Your task to perform on an android device: Open Youtube and go to "Your channel" Image 0: 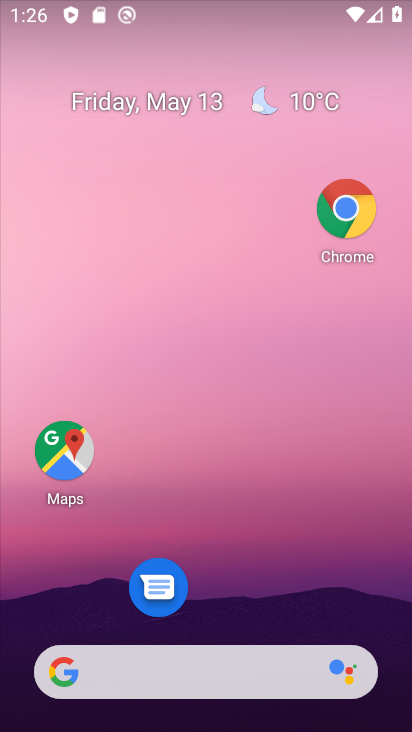
Step 0: drag from (302, 543) to (301, 22)
Your task to perform on an android device: Open Youtube and go to "Your channel" Image 1: 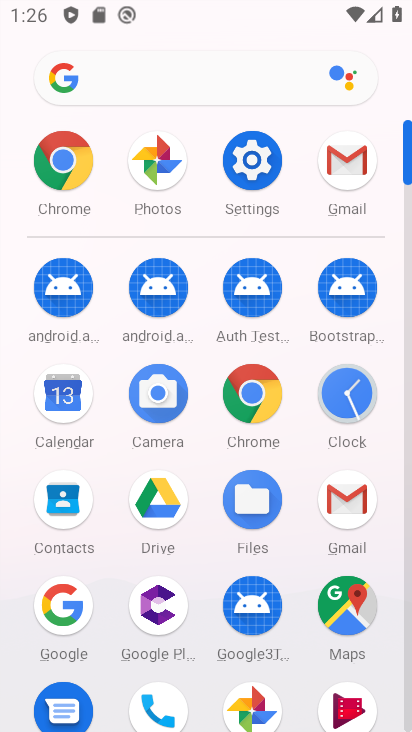
Step 1: drag from (187, 649) to (281, 44)
Your task to perform on an android device: Open Youtube and go to "Your channel" Image 2: 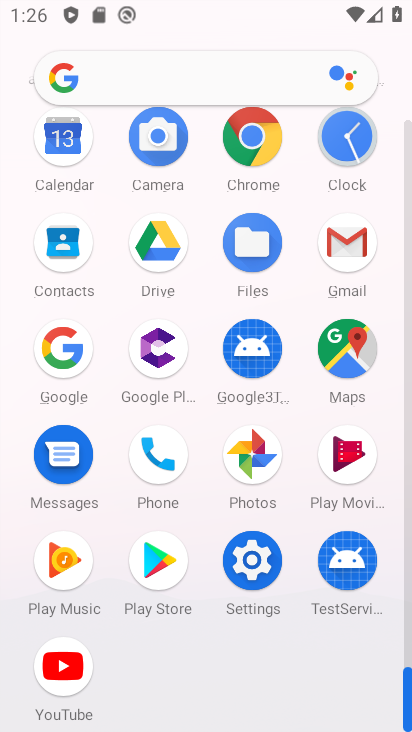
Step 2: click (62, 674)
Your task to perform on an android device: Open Youtube and go to "Your channel" Image 3: 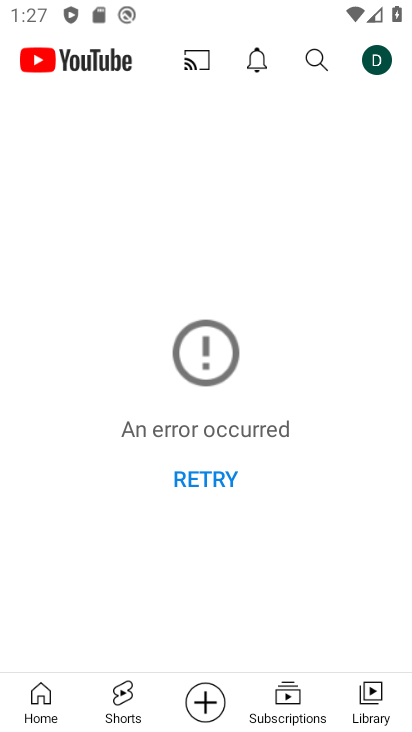
Step 3: click (380, 55)
Your task to perform on an android device: Open Youtube and go to "Your channel" Image 4: 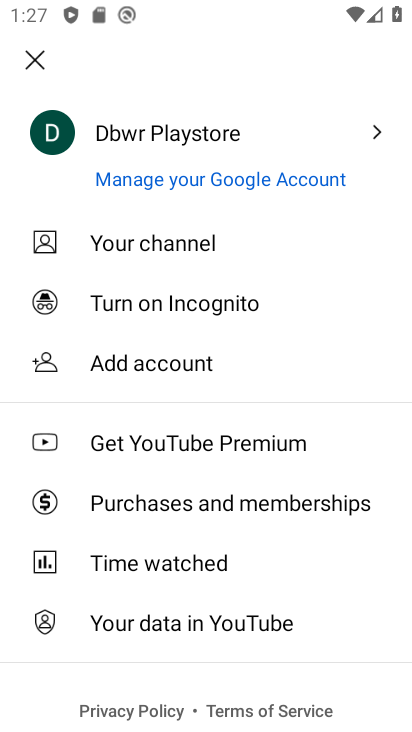
Step 4: click (112, 239)
Your task to perform on an android device: Open Youtube and go to "Your channel" Image 5: 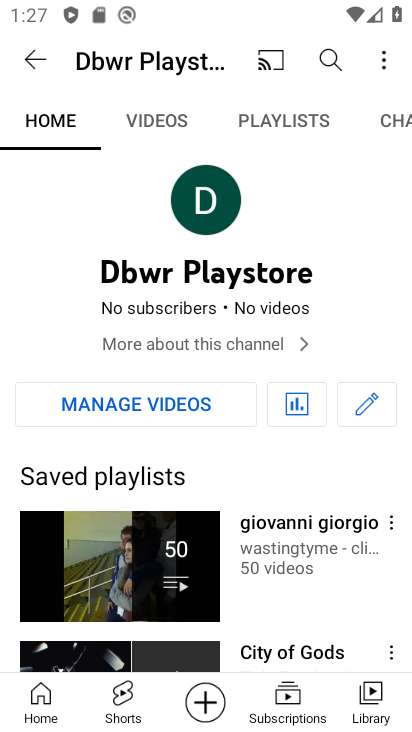
Step 5: task complete